Your task to perform on an android device: Show me popular videos on Youtube Image 0: 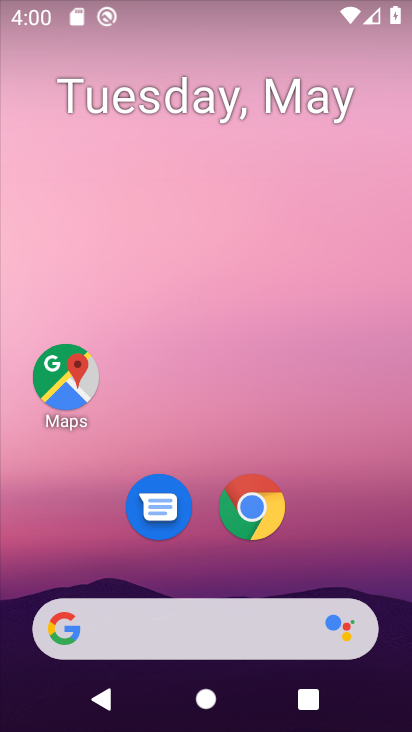
Step 0: drag from (227, 581) to (321, 90)
Your task to perform on an android device: Show me popular videos on Youtube Image 1: 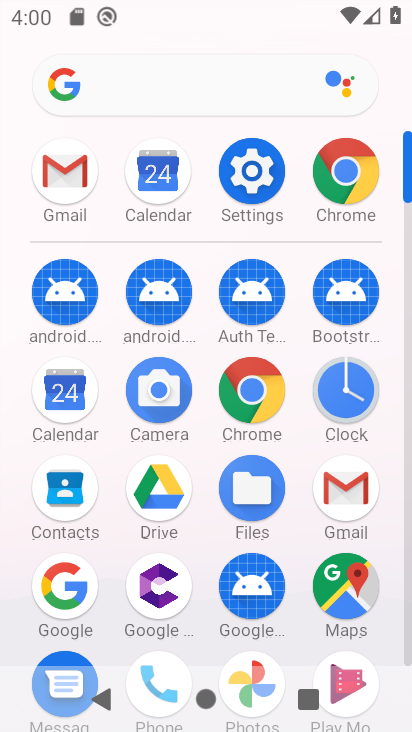
Step 1: drag from (199, 576) to (209, 251)
Your task to perform on an android device: Show me popular videos on Youtube Image 2: 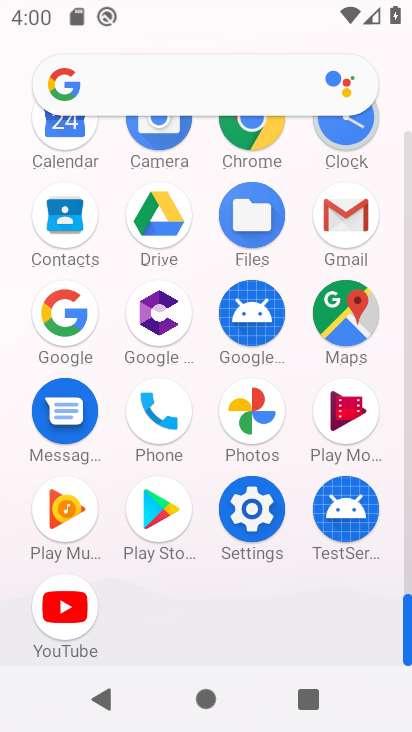
Step 2: click (65, 608)
Your task to perform on an android device: Show me popular videos on Youtube Image 3: 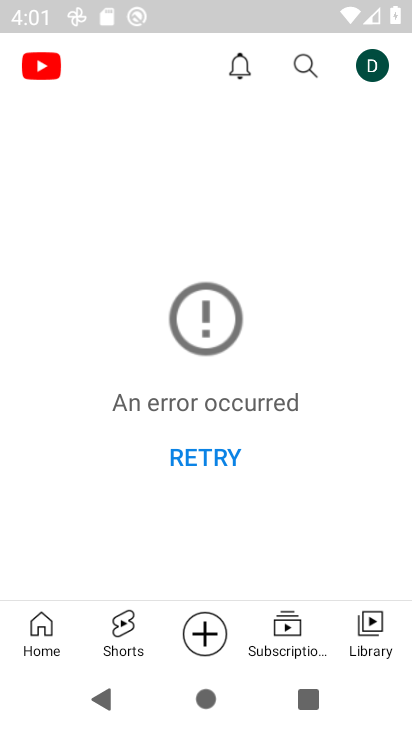
Step 3: click (205, 463)
Your task to perform on an android device: Show me popular videos on Youtube Image 4: 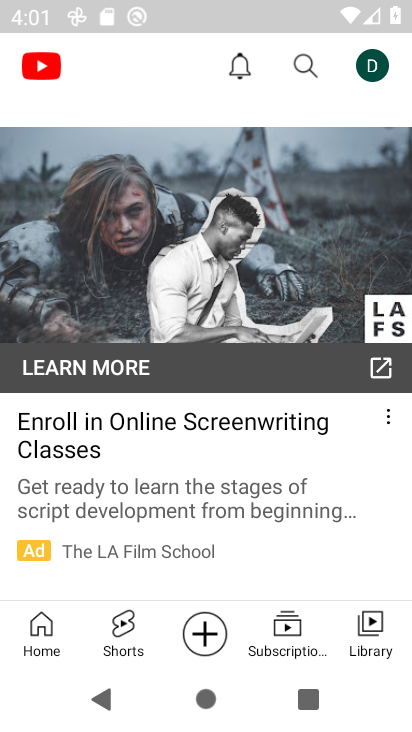
Step 4: drag from (121, 216) to (145, 466)
Your task to perform on an android device: Show me popular videos on Youtube Image 5: 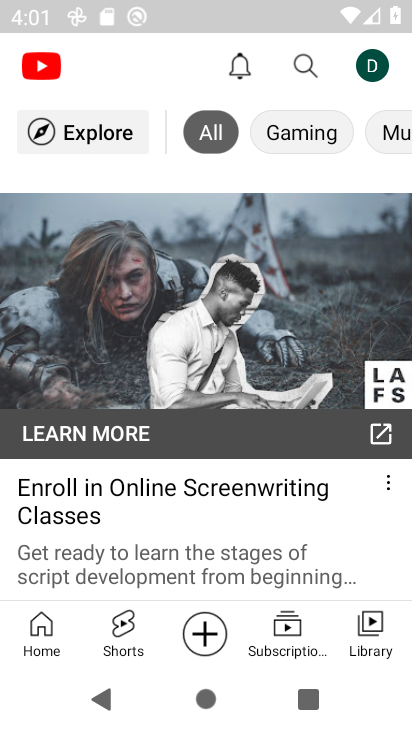
Step 5: click (76, 124)
Your task to perform on an android device: Show me popular videos on Youtube Image 6: 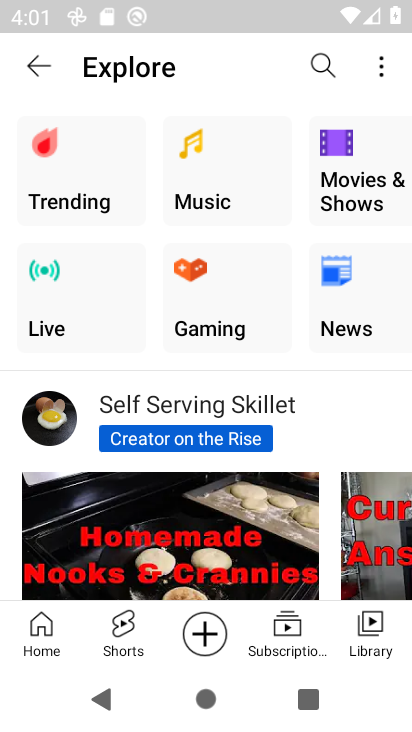
Step 6: click (55, 188)
Your task to perform on an android device: Show me popular videos on Youtube Image 7: 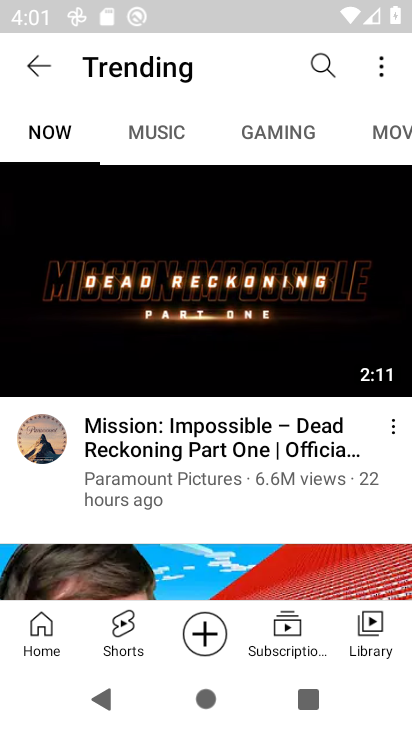
Step 7: task complete